Your task to perform on an android device: Open Amazon Image 0: 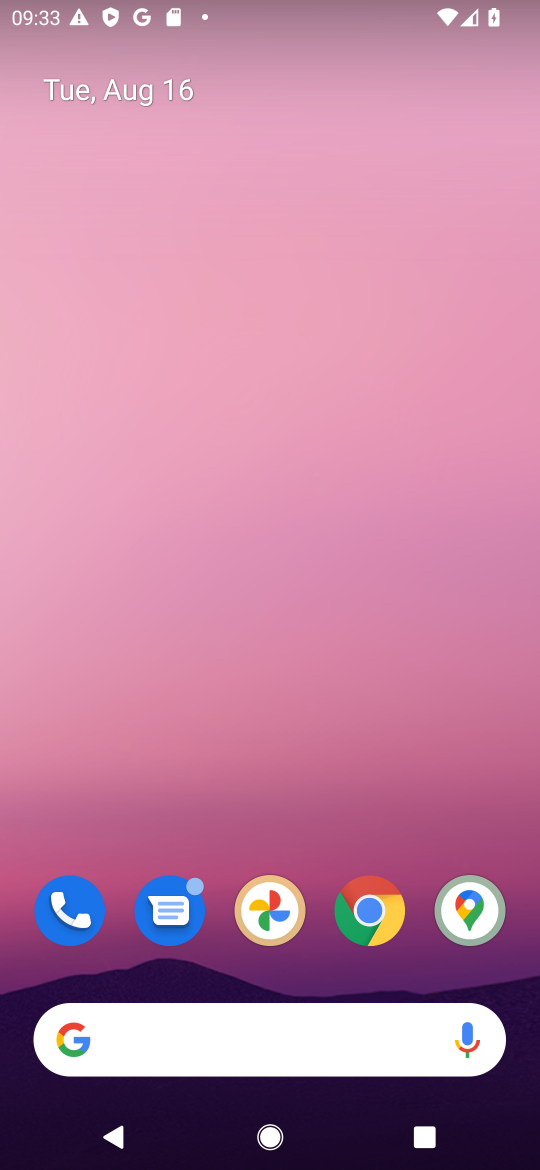
Step 0: drag from (292, 727) to (294, 373)
Your task to perform on an android device: Open Amazon Image 1: 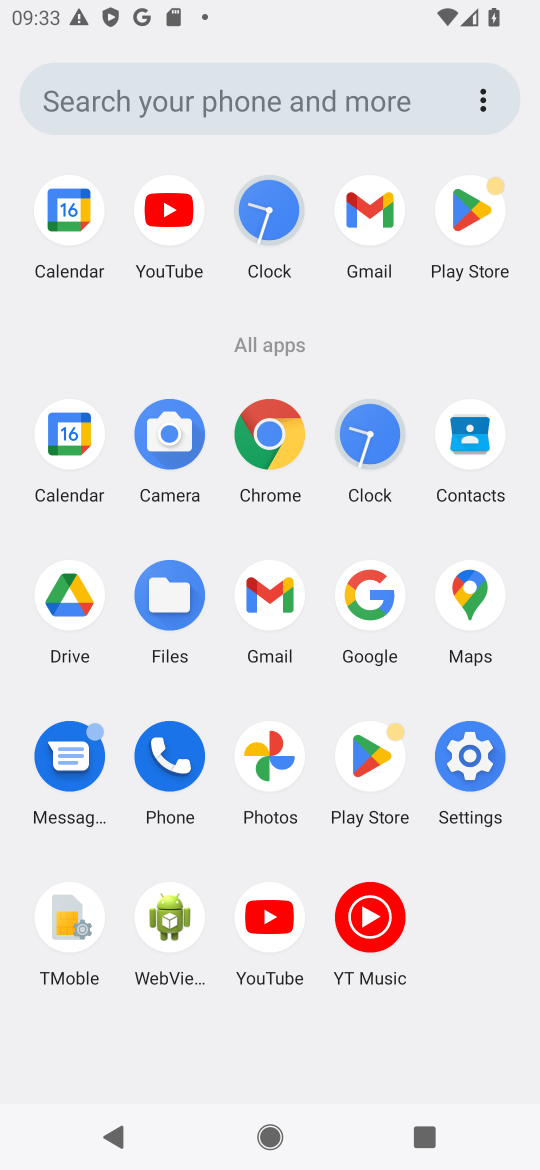
Step 1: click (271, 431)
Your task to perform on an android device: Open Amazon Image 2: 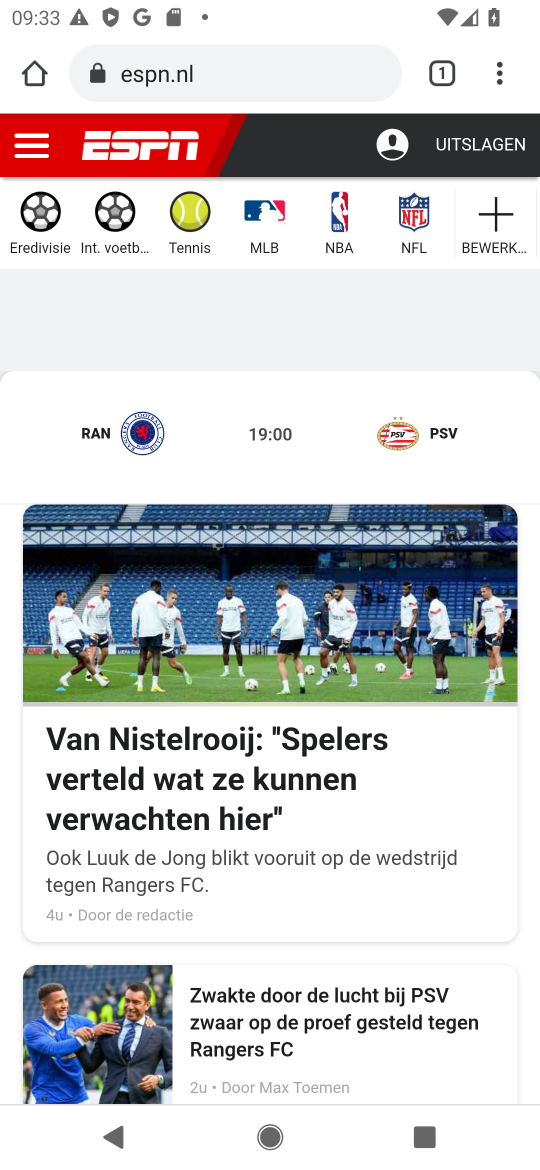
Step 2: click (500, 68)
Your task to perform on an android device: Open Amazon Image 3: 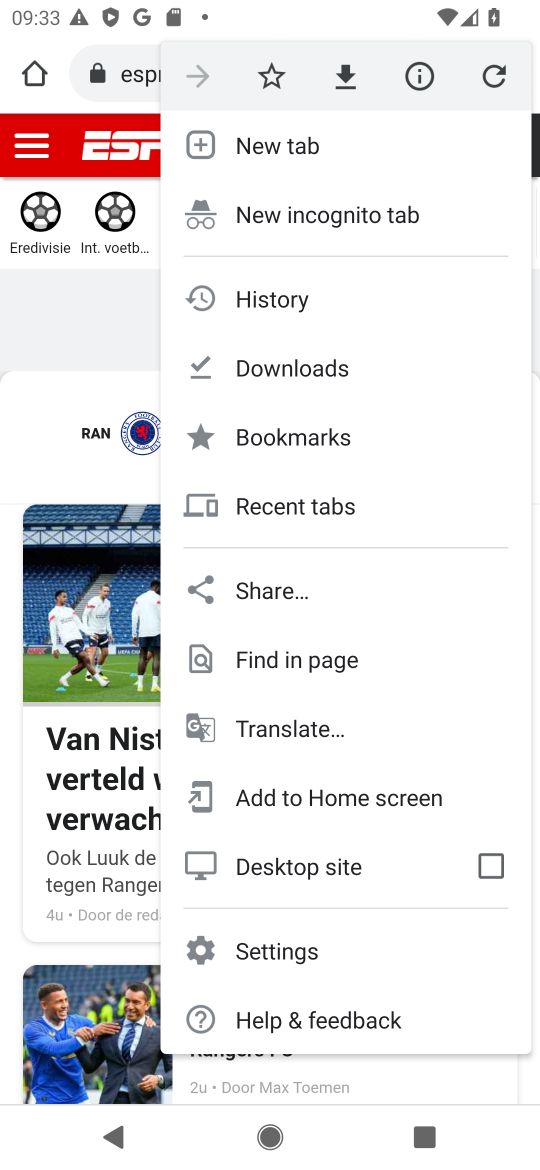
Step 3: click (321, 145)
Your task to perform on an android device: Open Amazon Image 4: 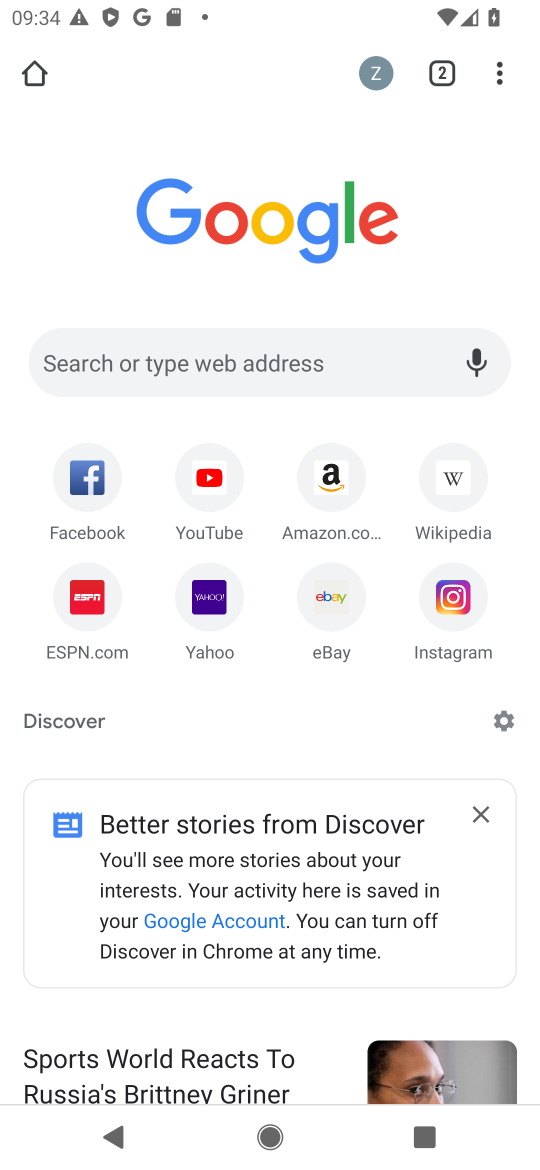
Step 4: click (334, 472)
Your task to perform on an android device: Open Amazon Image 5: 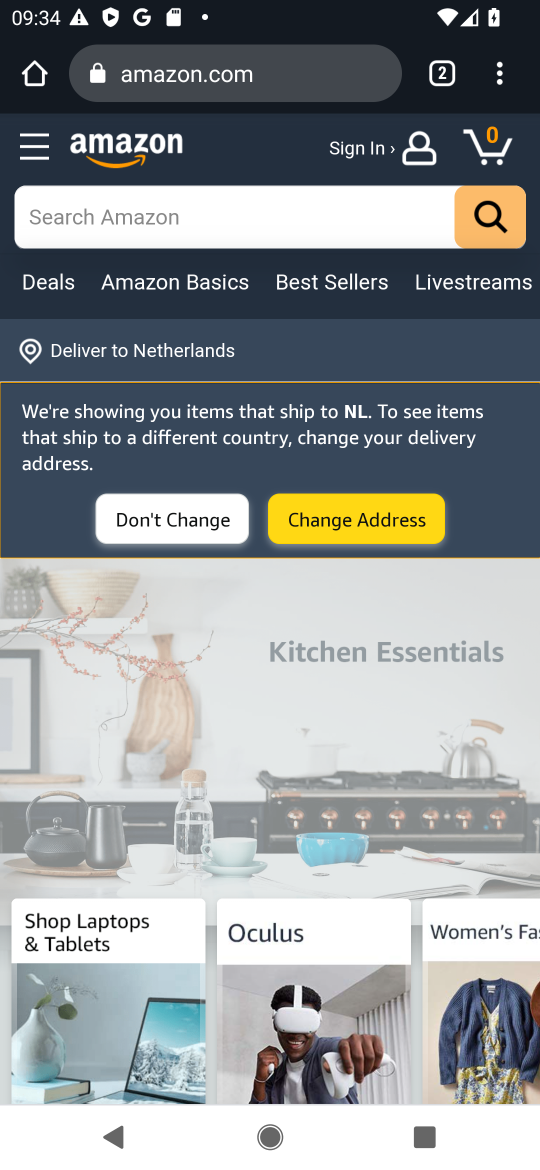
Step 5: task complete